Your task to perform on an android device: Go to wifi settings Image 0: 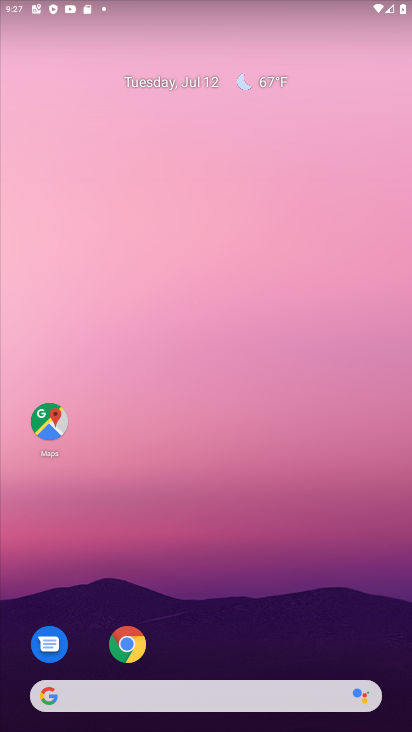
Step 0: drag from (178, 623) to (294, 241)
Your task to perform on an android device: Go to wifi settings Image 1: 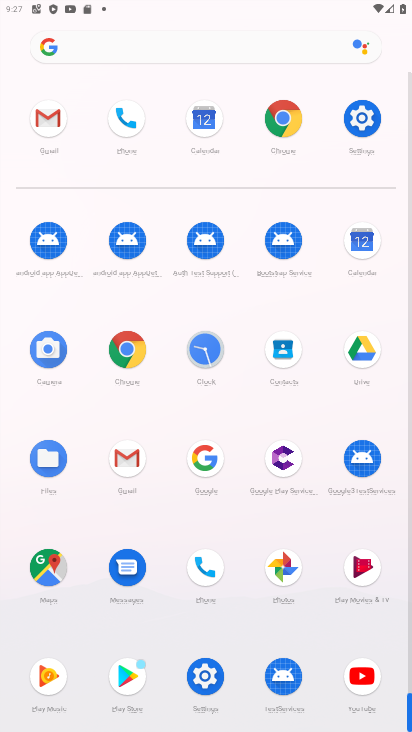
Step 1: click (207, 676)
Your task to perform on an android device: Go to wifi settings Image 2: 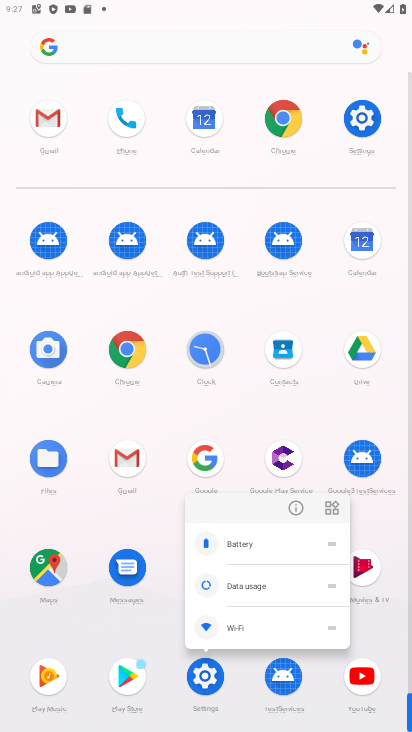
Step 2: click (294, 510)
Your task to perform on an android device: Go to wifi settings Image 3: 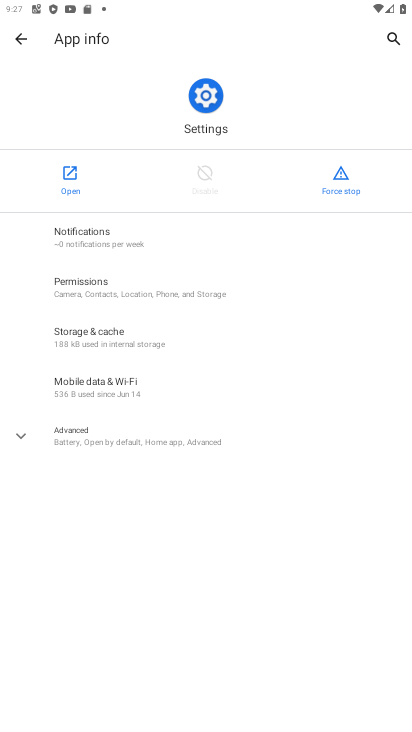
Step 3: click (79, 172)
Your task to perform on an android device: Go to wifi settings Image 4: 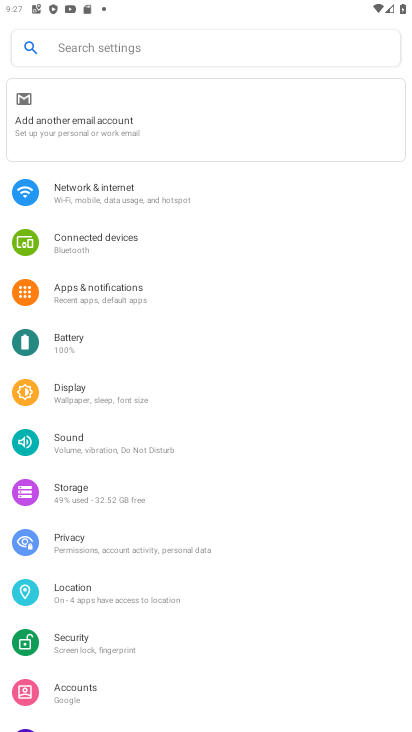
Step 4: click (127, 195)
Your task to perform on an android device: Go to wifi settings Image 5: 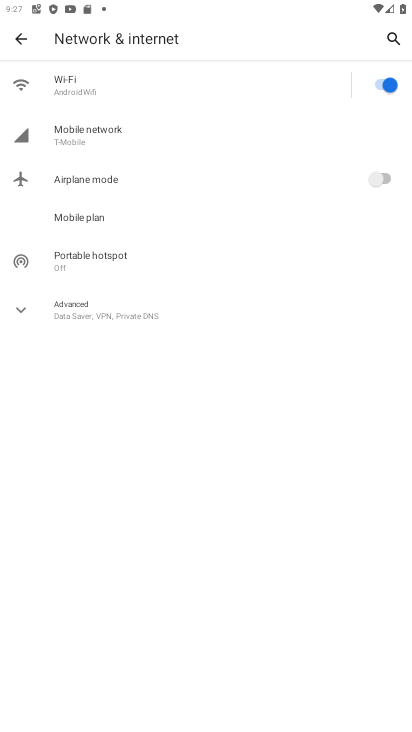
Step 5: click (127, 91)
Your task to perform on an android device: Go to wifi settings Image 6: 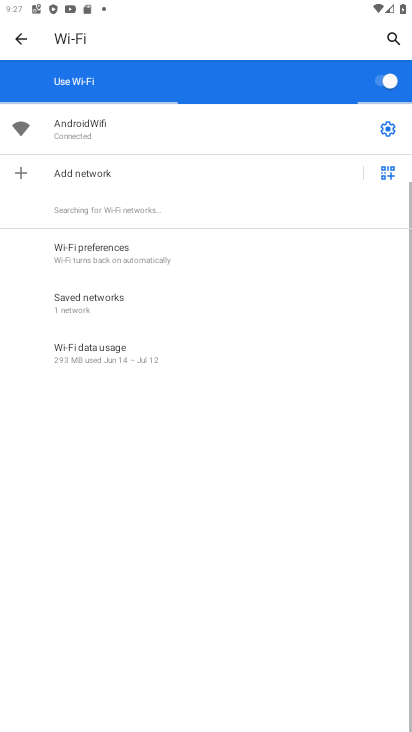
Step 6: drag from (175, 478) to (243, 183)
Your task to perform on an android device: Go to wifi settings Image 7: 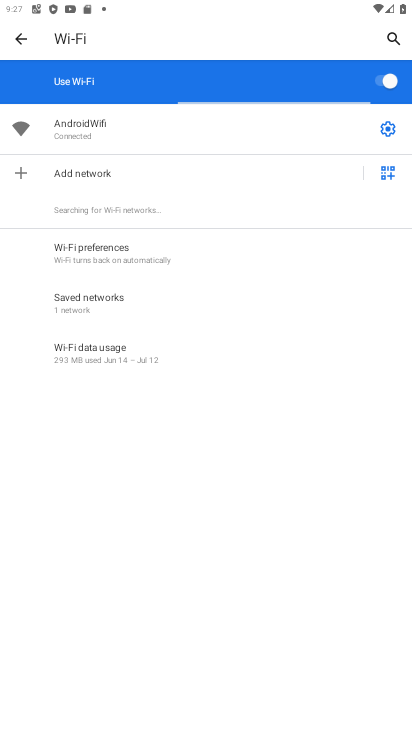
Step 7: drag from (224, 384) to (246, 258)
Your task to perform on an android device: Go to wifi settings Image 8: 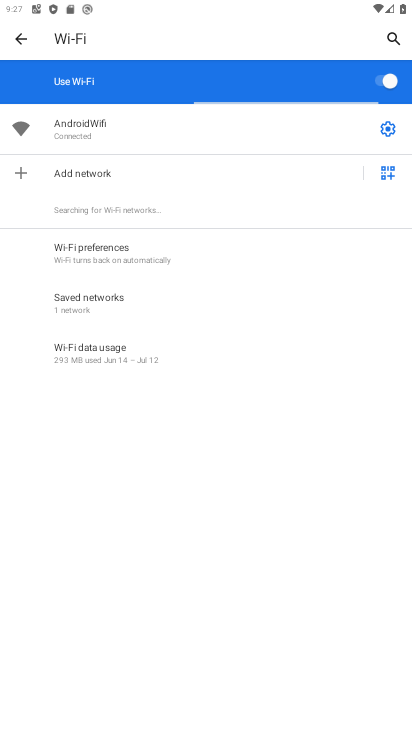
Step 8: click (393, 130)
Your task to perform on an android device: Go to wifi settings Image 9: 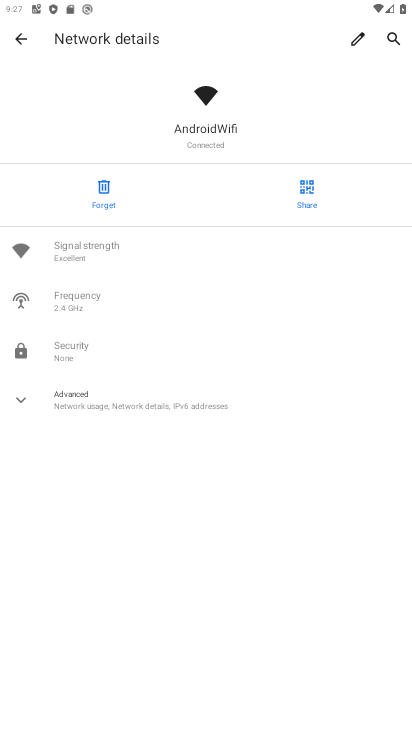
Step 9: task complete